Your task to perform on an android device: Open Google Chrome Image 0: 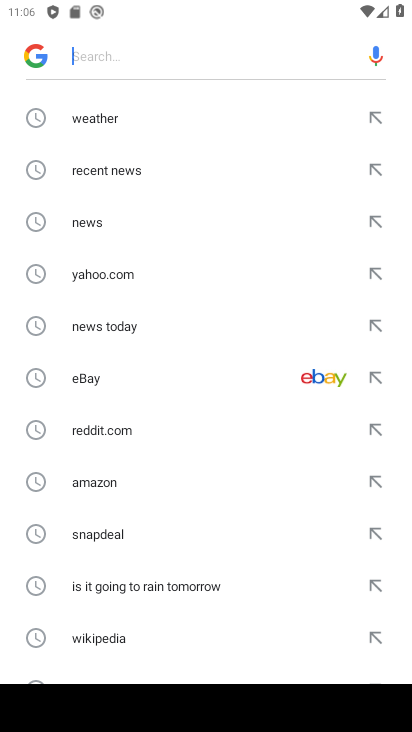
Step 0: press home button
Your task to perform on an android device: Open Google Chrome Image 1: 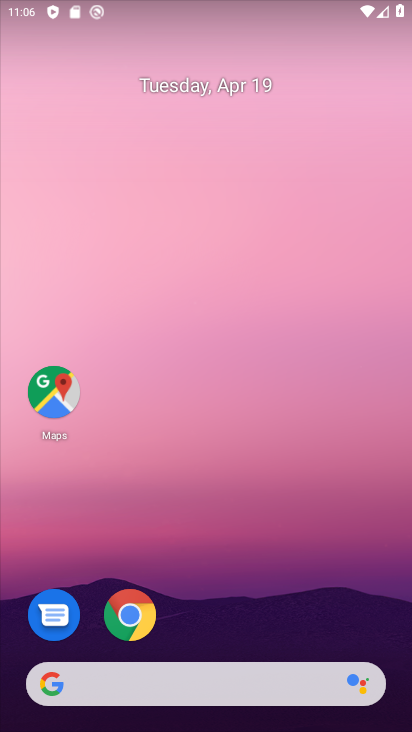
Step 1: click (125, 609)
Your task to perform on an android device: Open Google Chrome Image 2: 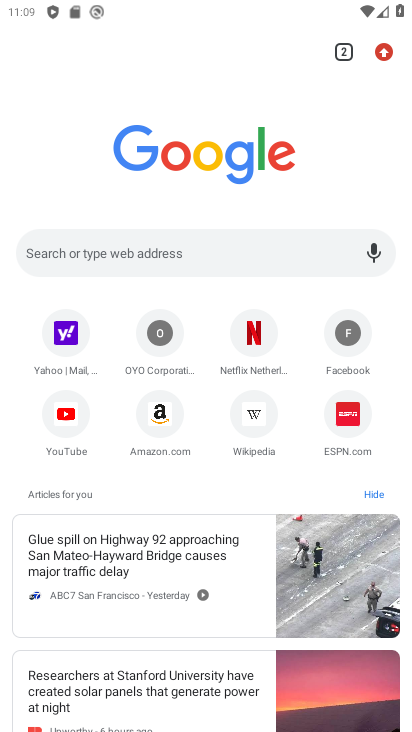
Step 2: task complete